Your task to perform on an android device: find snoozed emails in the gmail app Image 0: 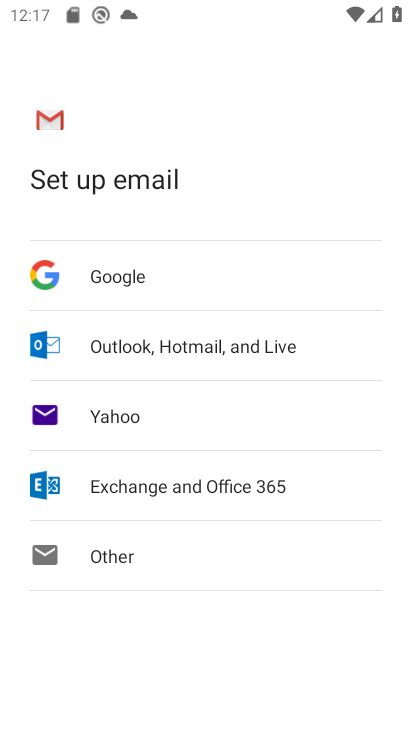
Step 0: press home button
Your task to perform on an android device: find snoozed emails in the gmail app Image 1: 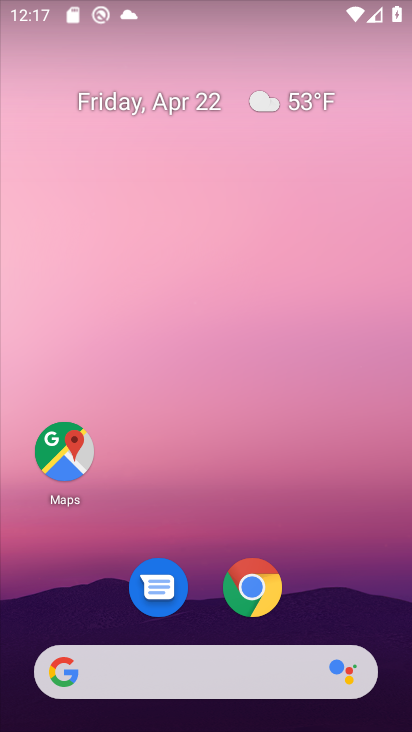
Step 1: drag from (314, 611) to (320, 149)
Your task to perform on an android device: find snoozed emails in the gmail app Image 2: 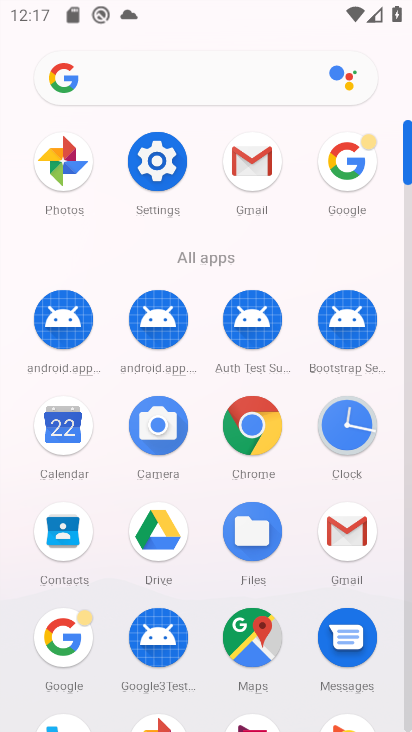
Step 2: click (249, 183)
Your task to perform on an android device: find snoozed emails in the gmail app Image 3: 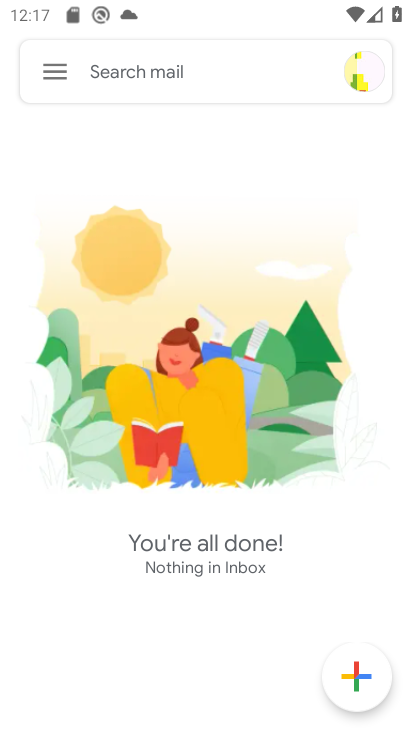
Step 3: click (63, 77)
Your task to perform on an android device: find snoozed emails in the gmail app Image 4: 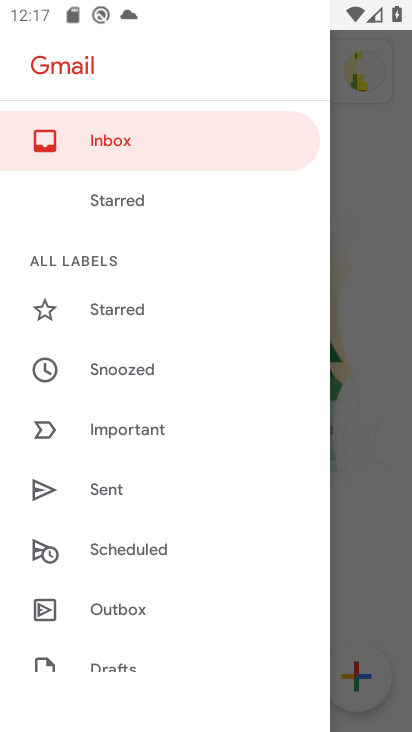
Step 4: click (155, 372)
Your task to perform on an android device: find snoozed emails in the gmail app Image 5: 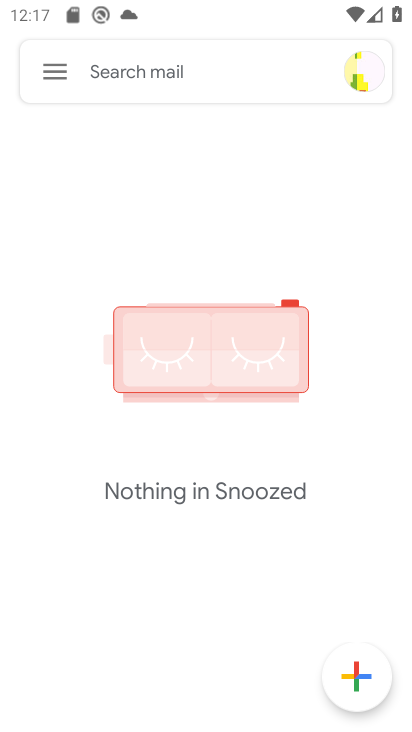
Step 5: task complete